Your task to perform on an android device: Go to Yahoo.com Image 0: 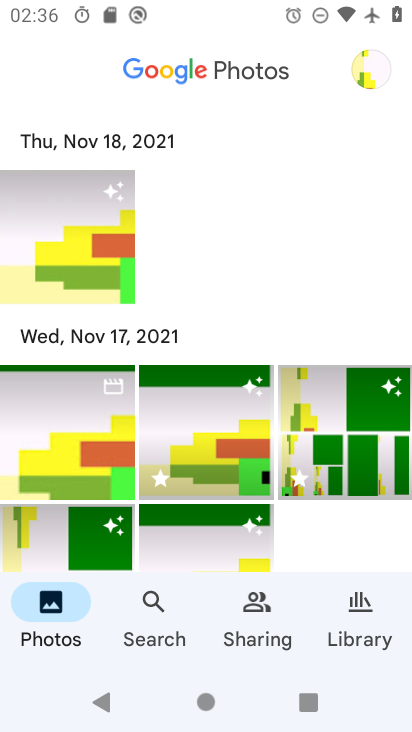
Step 0: press home button
Your task to perform on an android device: Go to Yahoo.com Image 1: 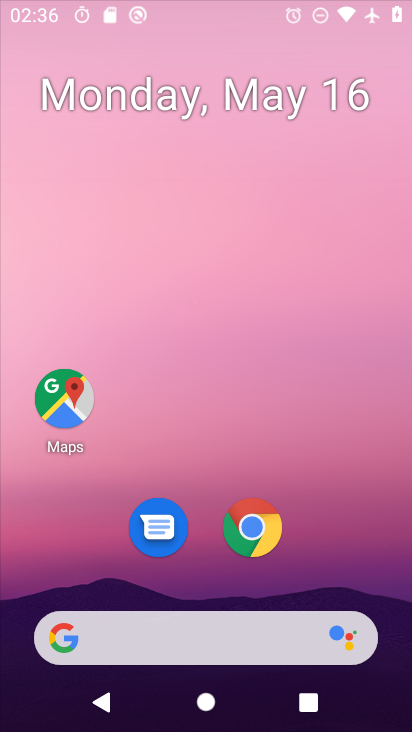
Step 1: click (405, 575)
Your task to perform on an android device: Go to Yahoo.com Image 2: 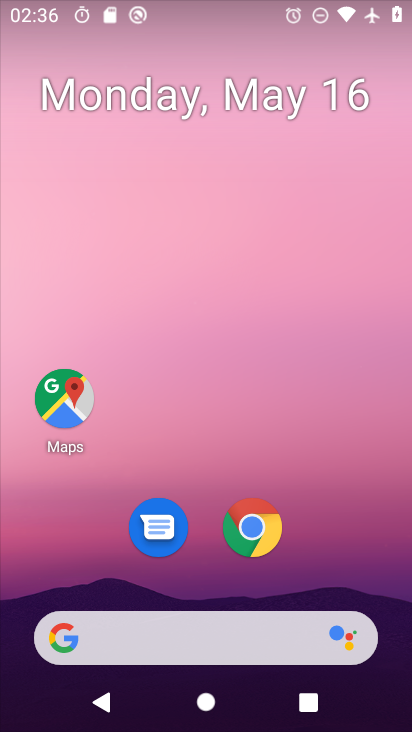
Step 2: click (256, 538)
Your task to perform on an android device: Go to Yahoo.com Image 3: 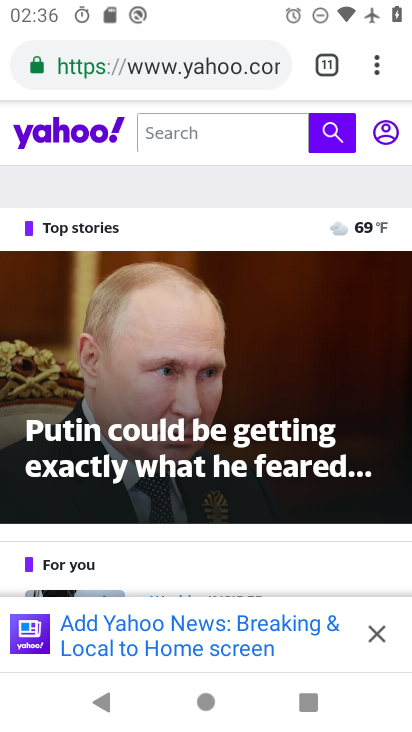
Step 3: task complete